Your task to perform on an android device: toggle sleep mode Image 0: 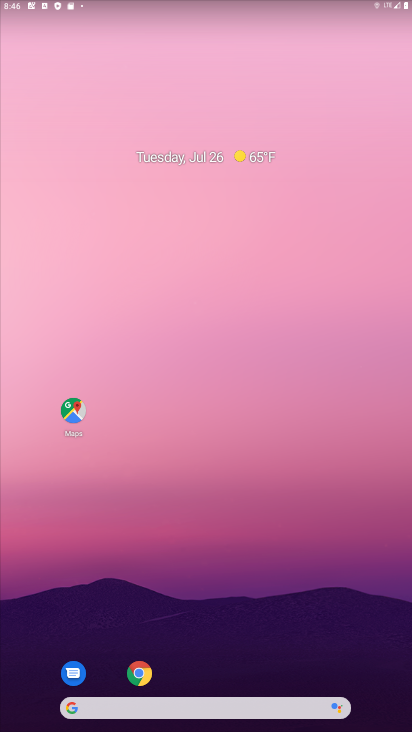
Step 0: drag from (206, 655) to (225, 135)
Your task to perform on an android device: toggle sleep mode Image 1: 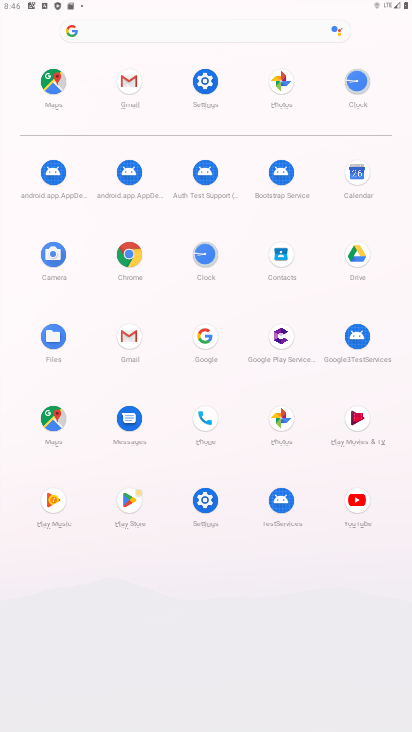
Step 1: click (192, 77)
Your task to perform on an android device: toggle sleep mode Image 2: 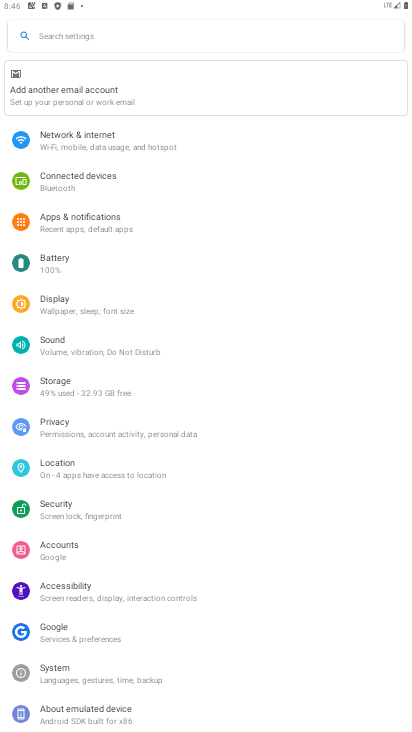
Step 2: click (67, 301)
Your task to perform on an android device: toggle sleep mode Image 3: 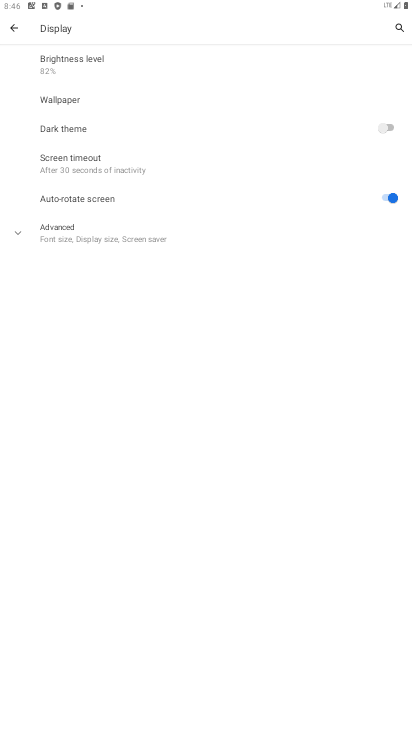
Step 3: click (81, 176)
Your task to perform on an android device: toggle sleep mode Image 4: 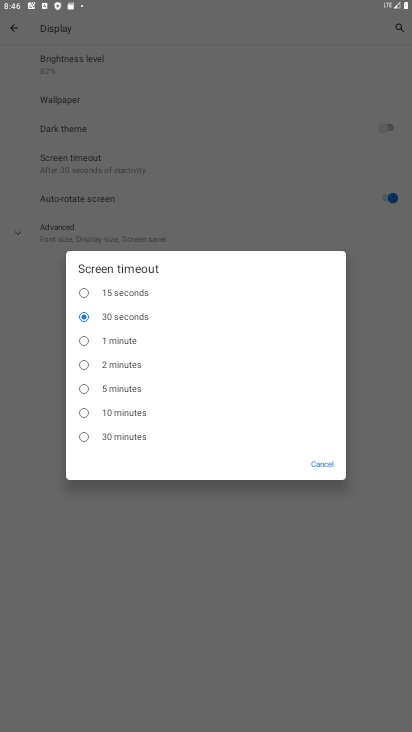
Step 4: click (88, 394)
Your task to perform on an android device: toggle sleep mode Image 5: 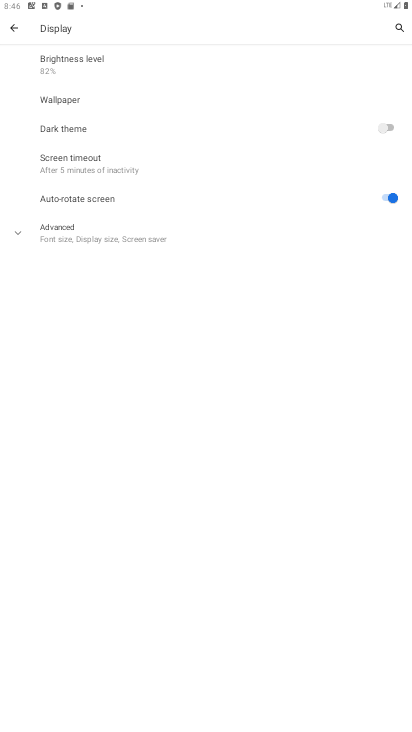
Step 5: task complete